Your task to perform on an android device: View the shopping cart on walmart.com. Search for amazon basics triple a on walmart.com, select the first entry, add it to the cart, then select checkout. Image 0: 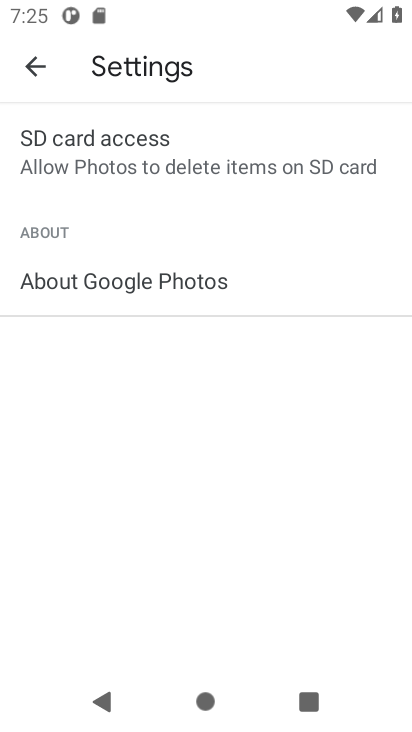
Step 0: press home button
Your task to perform on an android device: View the shopping cart on walmart.com. Search for amazon basics triple a on walmart.com, select the first entry, add it to the cart, then select checkout. Image 1: 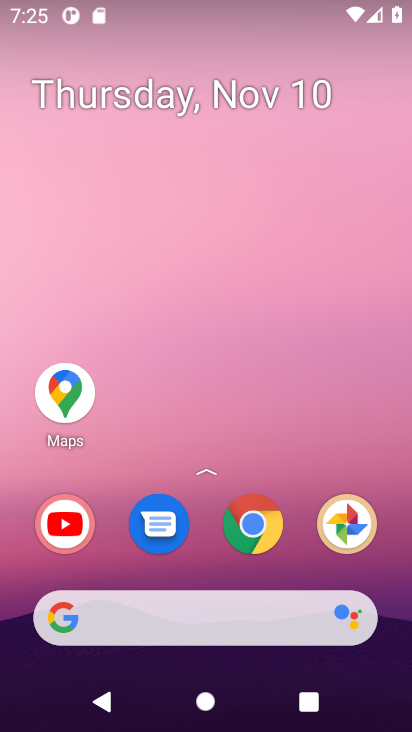
Step 1: click (250, 518)
Your task to perform on an android device: View the shopping cart on walmart.com. Search for amazon basics triple a on walmart.com, select the first entry, add it to the cart, then select checkout. Image 2: 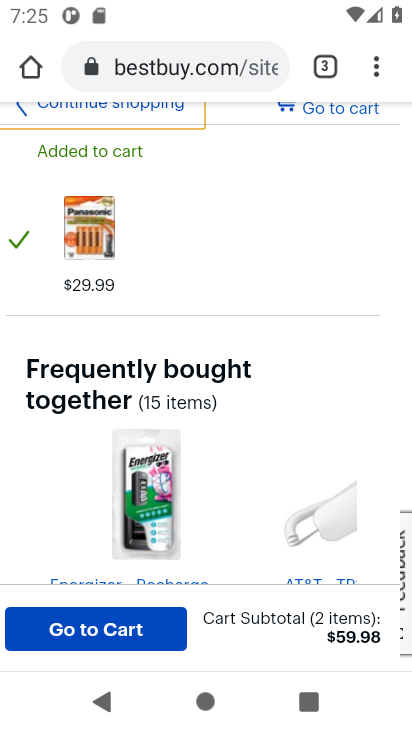
Step 2: click (327, 75)
Your task to perform on an android device: View the shopping cart on walmart.com. Search for amazon basics triple a on walmart.com, select the first entry, add it to the cart, then select checkout. Image 3: 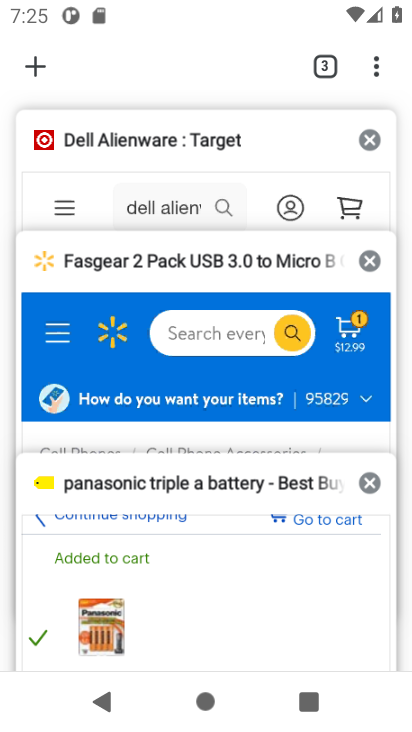
Step 3: click (160, 364)
Your task to perform on an android device: View the shopping cart on walmart.com. Search for amazon basics triple a on walmart.com, select the first entry, add it to the cart, then select checkout. Image 4: 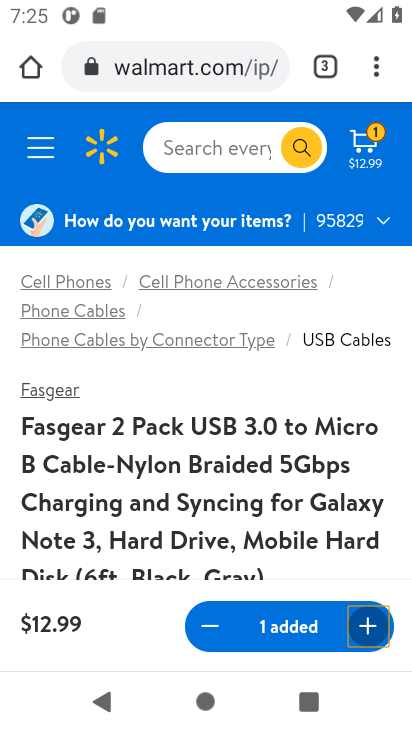
Step 4: click (364, 150)
Your task to perform on an android device: View the shopping cart on walmart.com. Search for amazon basics triple a on walmart.com, select the first entry, add it to the cart, then select checkout. Image 5: 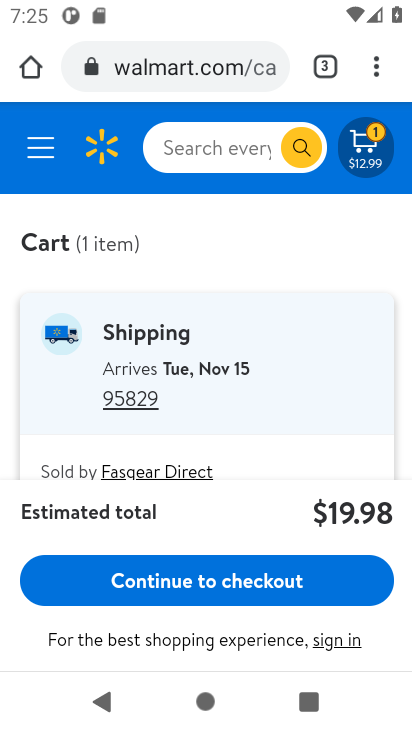
Step 5: drag from (286, 470) to (326, 101)
Your task to perform on an android device: View the shopping cart on walmart.com. Search for amazon basics triple a on walmart.com, select the first entry, add it to the cart, then select checkout. Image 6: 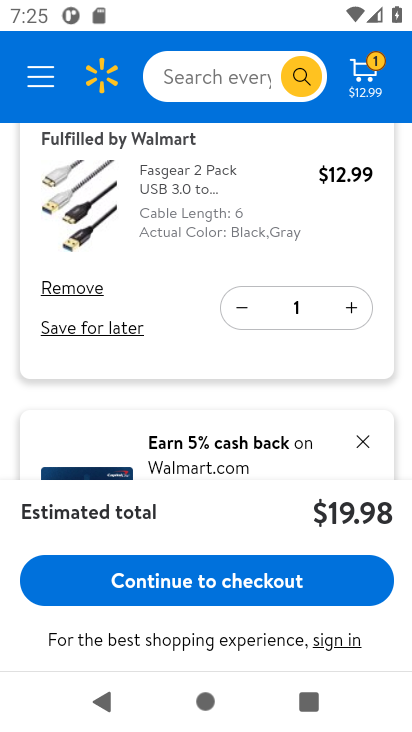
Step 6: click (70, 288)
Your task to perform on an android device: View the shopping cart on walmart.com. Search for amazon basics triple a on walmart.com, select the first entry, add it to the cart, then select checkout. Image 7: 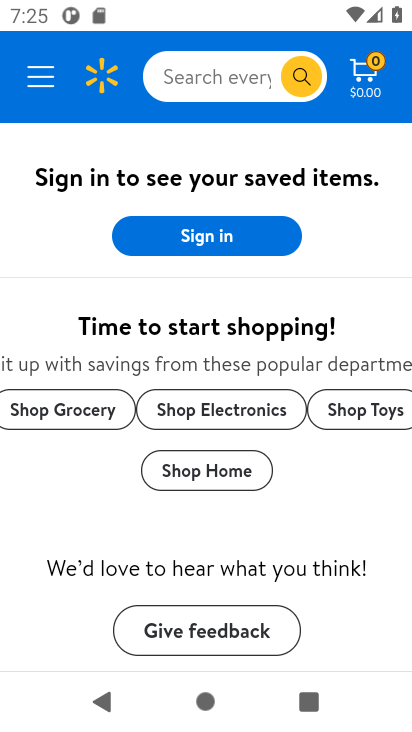
Step 7: task complete